Your task to perform on an android device: empty trash in google photos Image 0: 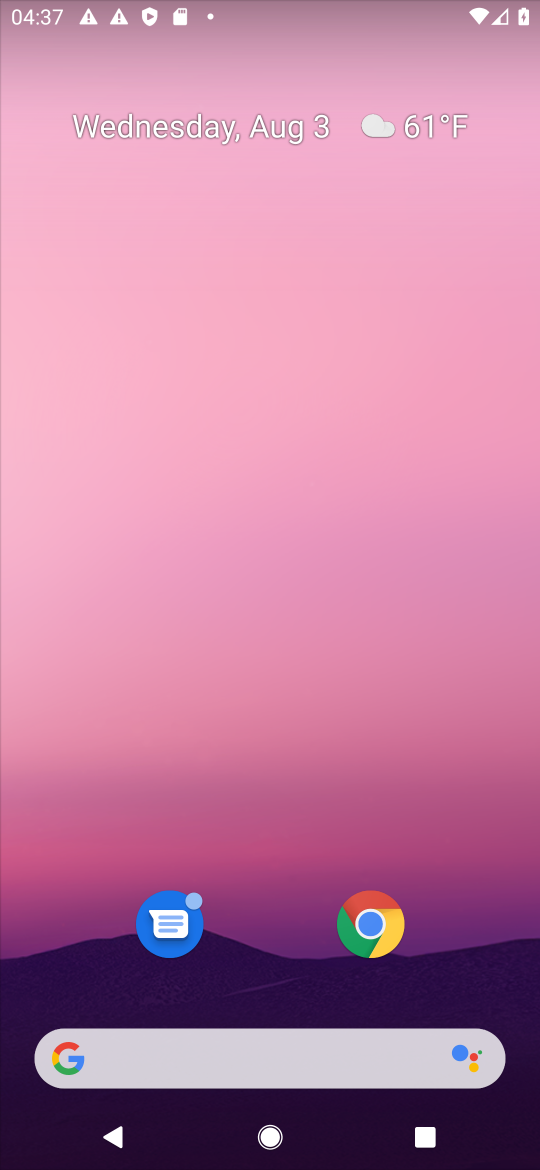
Step 0: drag from (257, 974) to (262, 300)
Your task to perform on an android device: empty trash in google photos Image 1: 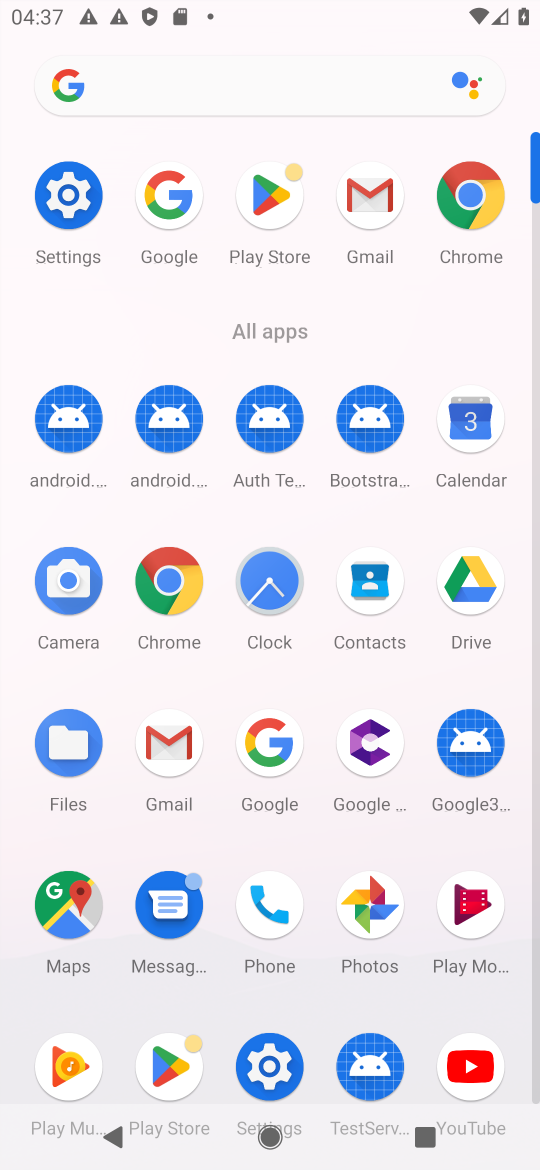
Step 1: click (364, 921)
Your task to perform on an android device: empty trash in google photos Image 2: 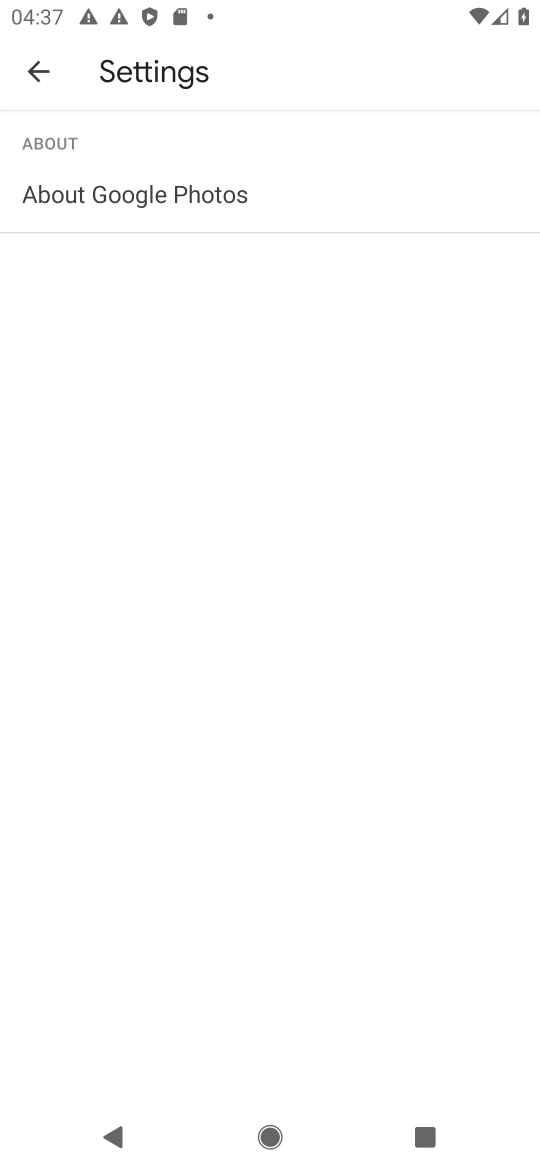
Step 2: click (62, 57)
Your task to perform on an android device: empty trash in google photos Image 3: 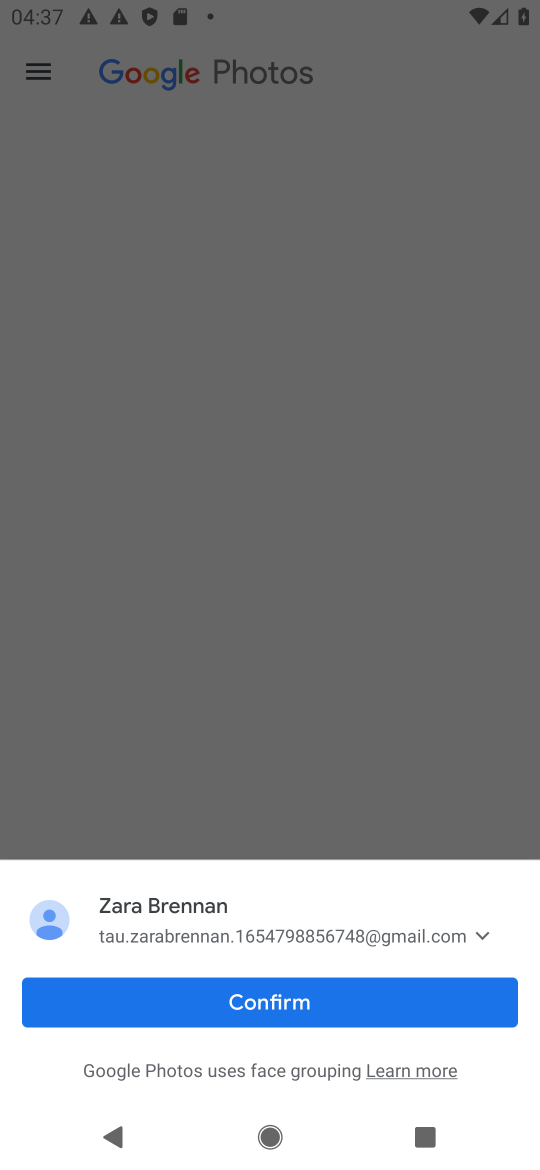
Step 3: click (38, 75)
Your task to perform on an android device: empty trash in google photos Image 4: 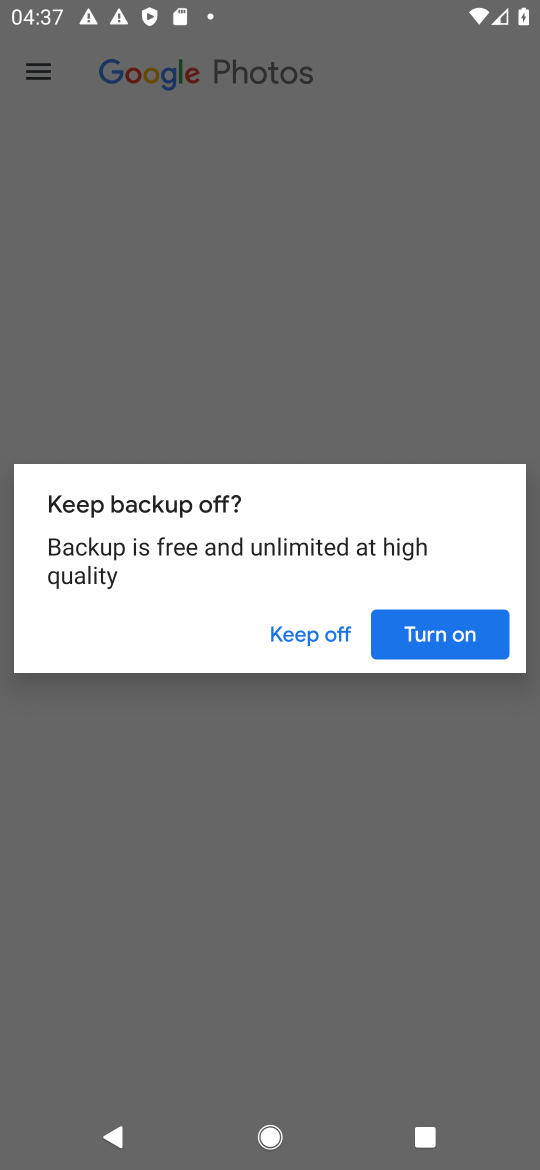
Step 4: click (33, 78)
Your task to perform on an android device: empty trash in google photos Image 5: 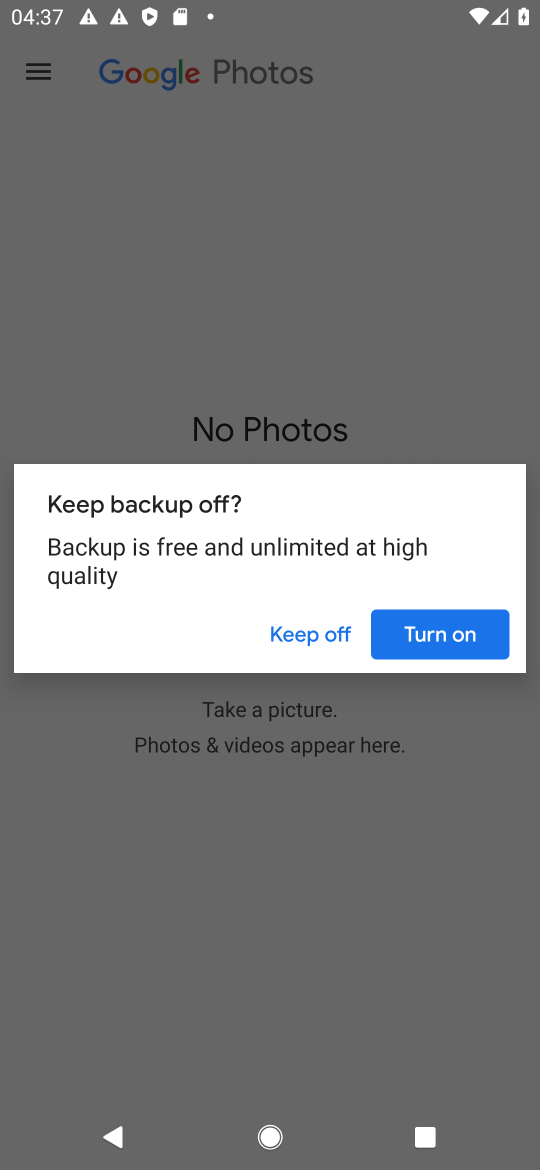
Step 5: click (407, 629)
Your task to perform on an android device: empty trash in google photos Image 6: 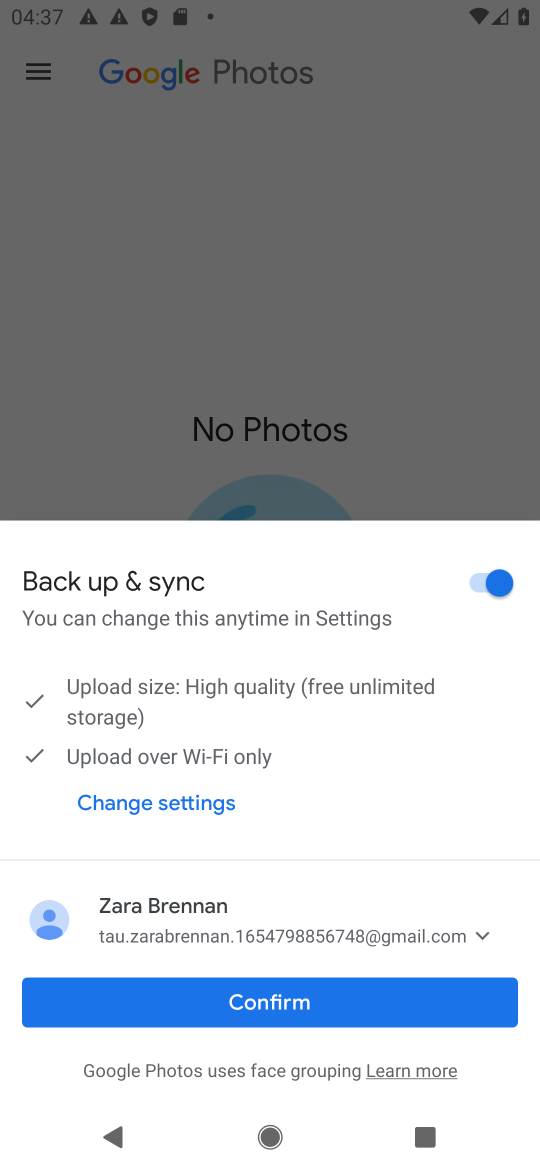
Step 6: click (262, 1009)
Your task to perform on an android device: empty trash in google photos Image 7: 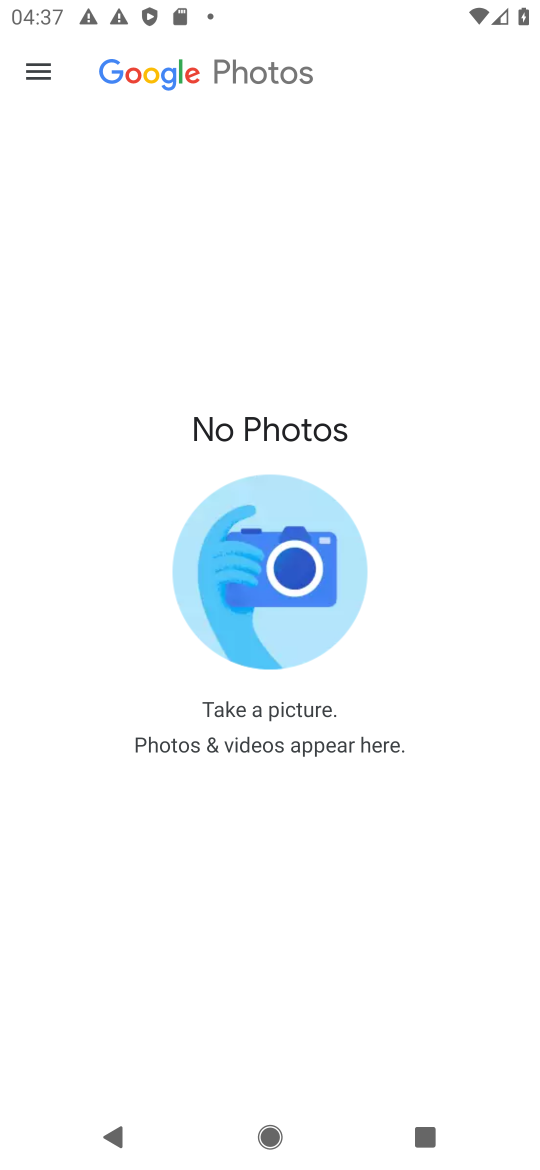
Step 7: click (40, 76)
Your task to perform on an android device: empty trash in google photos Image 8: 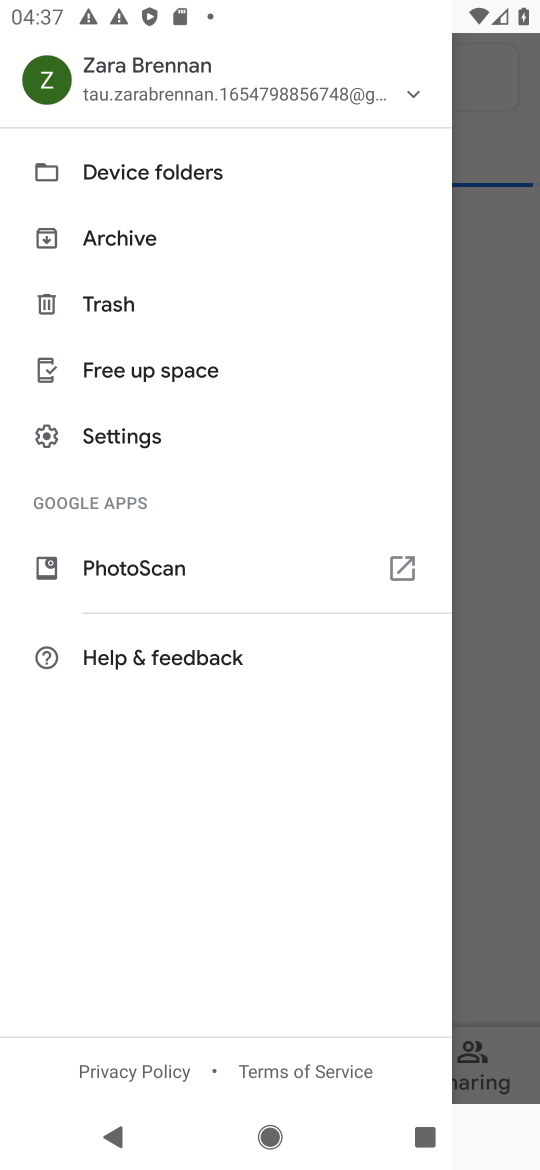
Step 8: click (108, 316)
Your task to perform on an android device: empty trash in google photos Image 9: 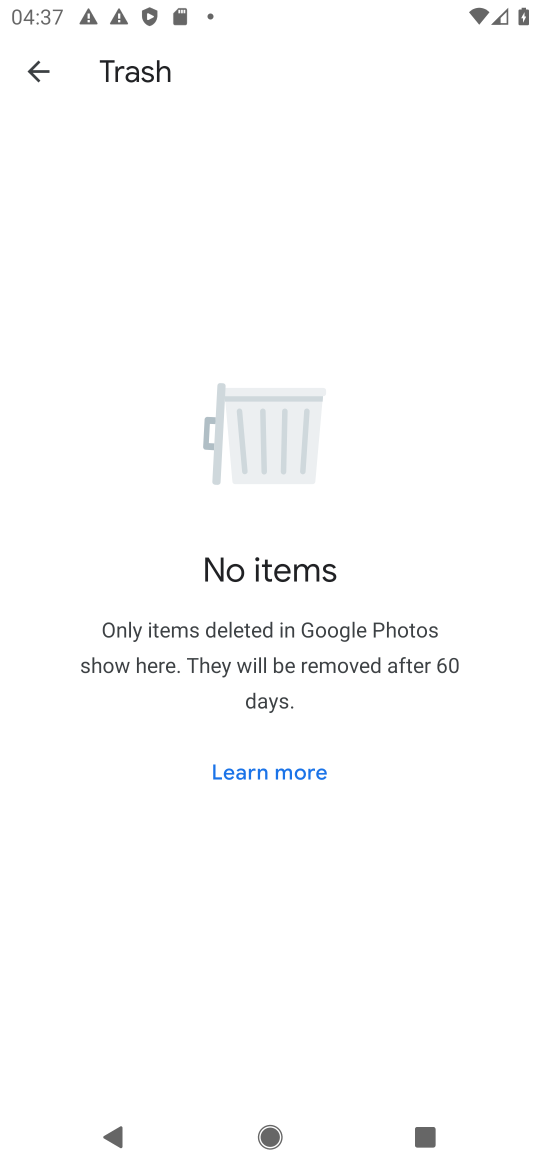
Step 9: task complete